Your task to perform on an android device: change keyboard looks Image 0: 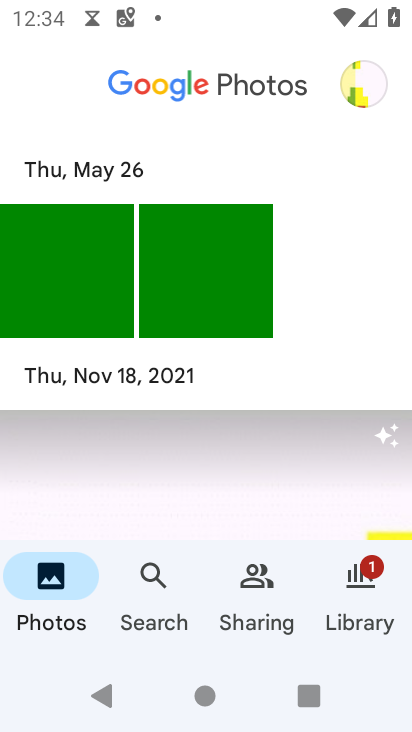
Step 0: press home button
Your task to perform on an android device: change keyboard looks Image 1: 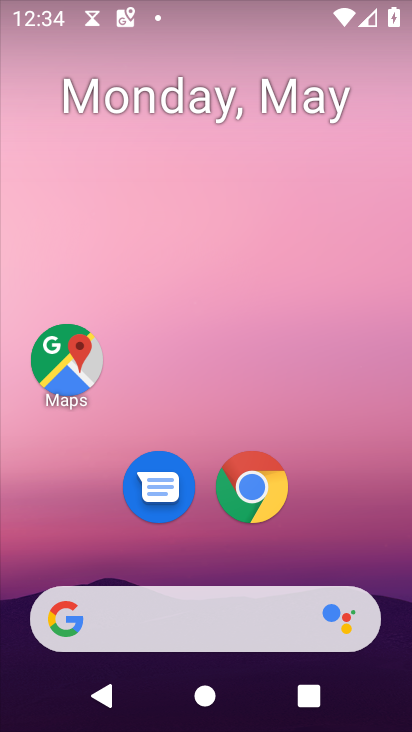
Step 1: drag from (202, 553) to (150, 0)
Your task to perform on an android device: change keyboard looks Image 2: 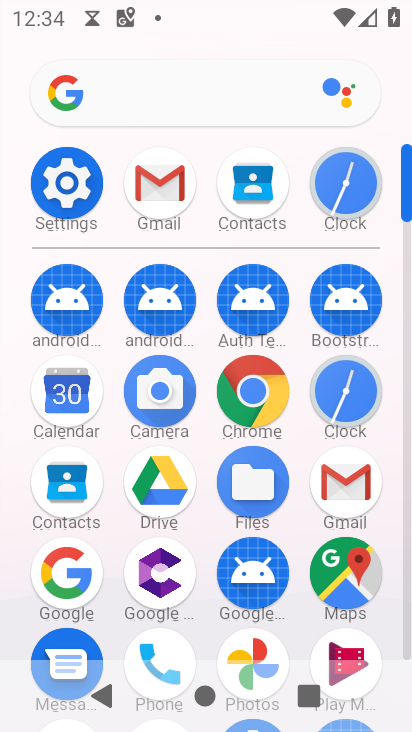
Step 2: click (66, 181)
Your task to perform on an android device: change keyboard looks Image 3: 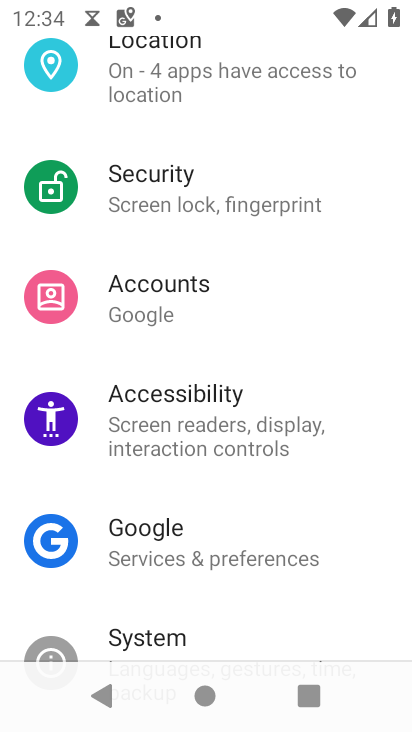
Step 3: drag from (186, 581) to (179, 48)
Your task to perform on an android device: change keyboard looks Image 4: 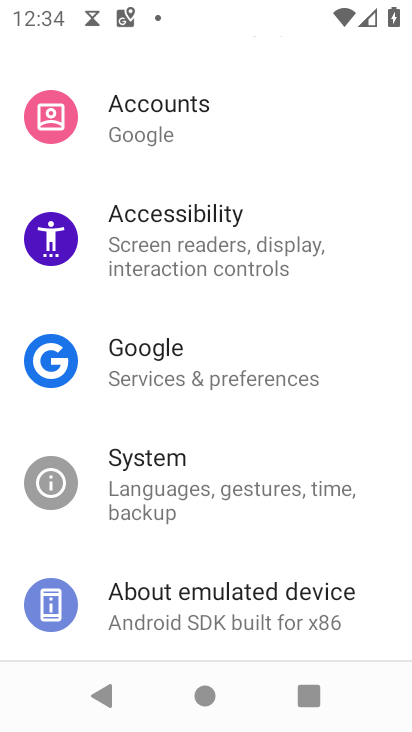
Step 4: click (177, 497)
Your task to perform on an android device: change keyboard looks Image 5: 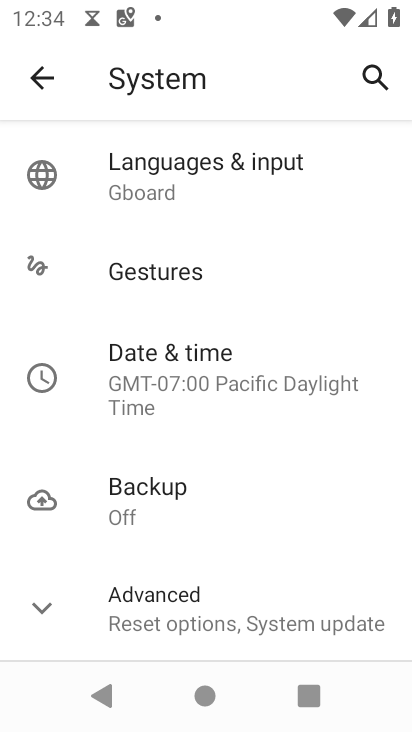
Step 5: click (167, 170)
Your task to perform on an android device: change keyboard looks Image 6: 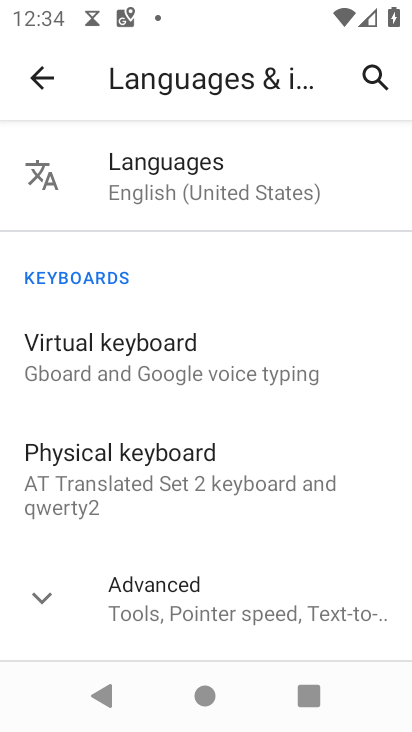
Step 6: click (143, 366)
Your task to perform on an android device: change keyboard looks Image 7: 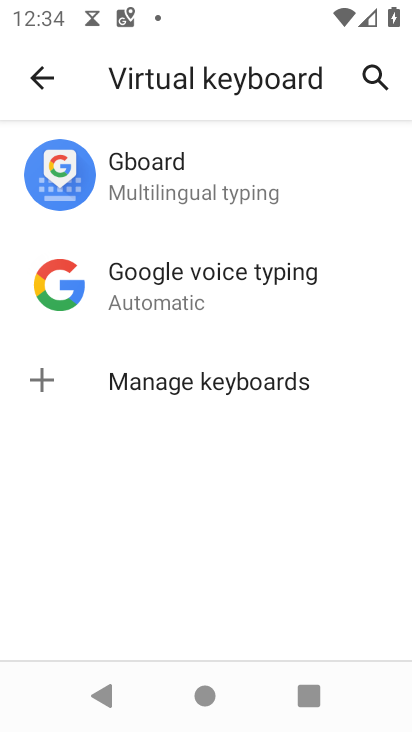
Step 7: click (195, 201)
Your task to perform on an android device: change keyboard looks Image 8: 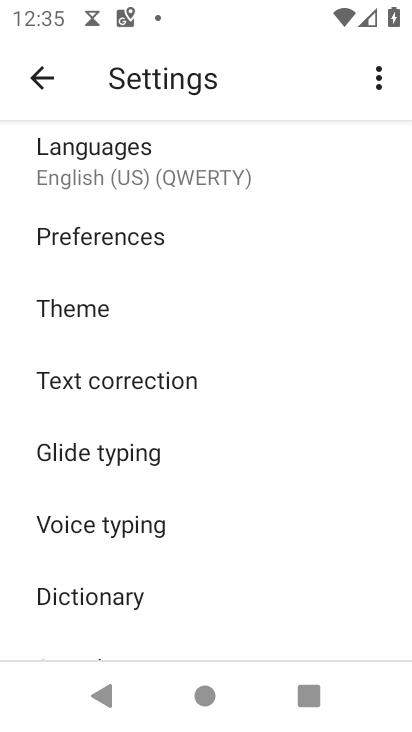
Step 8: click (66, 323)
Your task to perform on an android device: change keyboard looks Image 9: 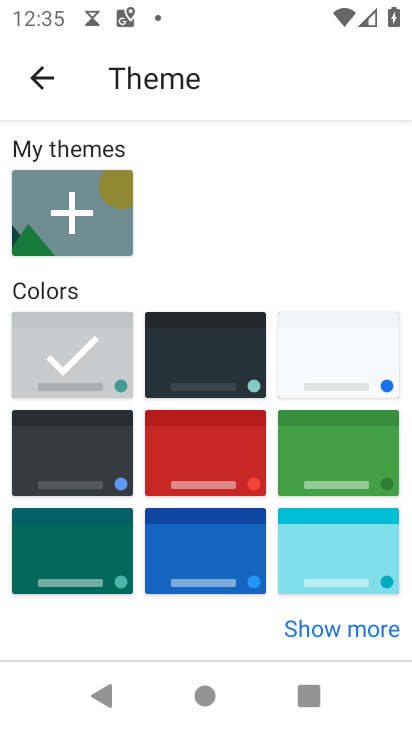
Step 9: click (88, 464)
Your task to perform on an android device: change keyboard looks Image 10: 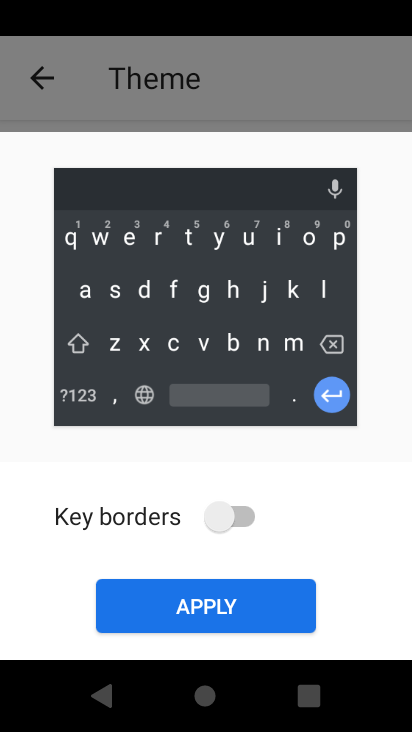
Step 10: click (199, 594)
Your task to perform on an android device: change keyboard looks Image 11: 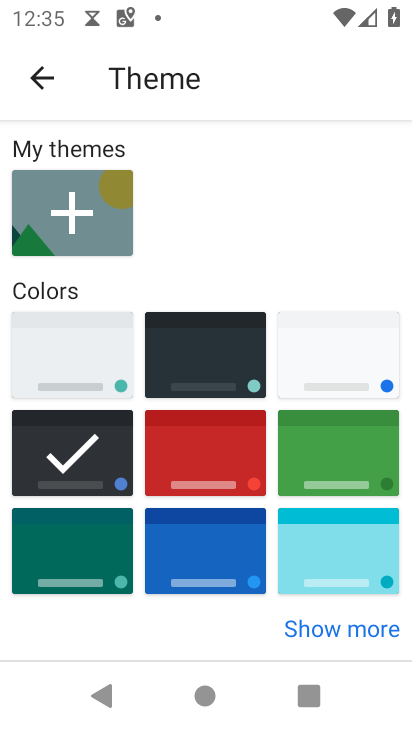
Step 11: task complete